Your task to perform on an android device: Open CNN.com Image 0: 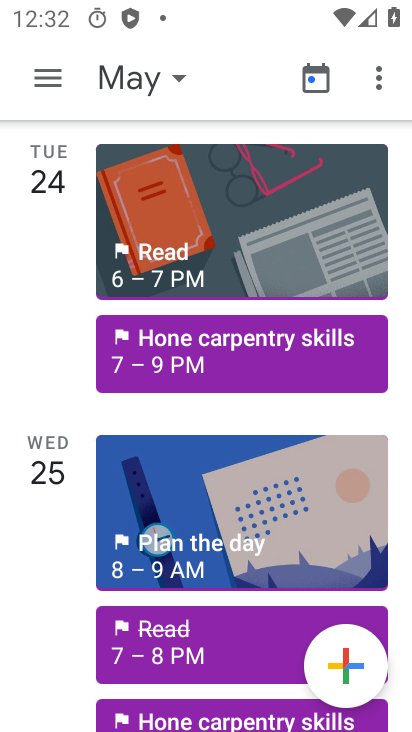
Step 0: press home button
Your task to perform on an android device: Open CNN.com Image 1: 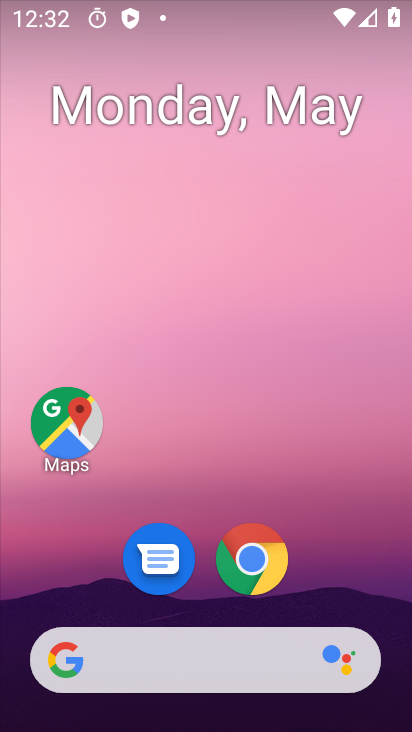
Step 1: drag from (319, 667) to (361, 352)
Your task to perform on an android device: Open CNN.com Image 2: 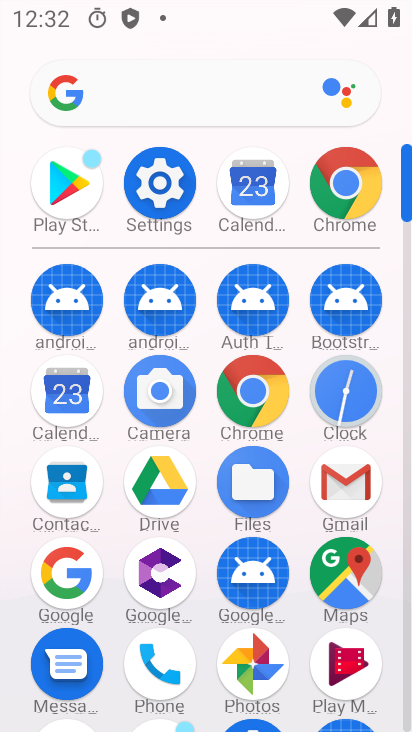
Step 2: click (245, 405)
Your task to perform on an android device: Open CNN.com Image 3: 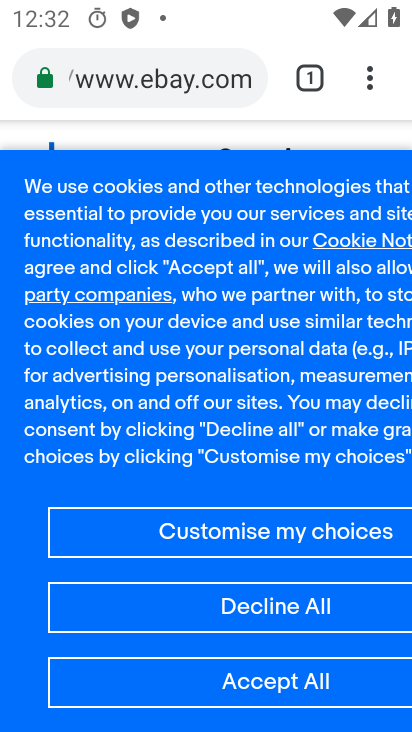
Step 3: click (192, 84)
Your task to perform on an android device: Open CNN.com Image 4: 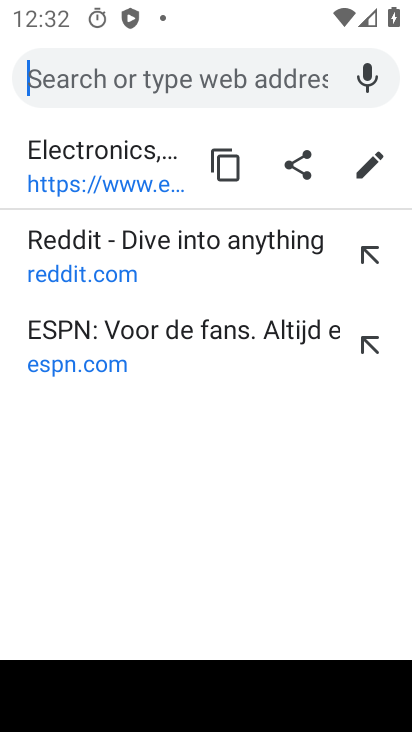
Step 4: type "cnn.com"
Your task to perform on an android device: Open CNN.com Image 5: 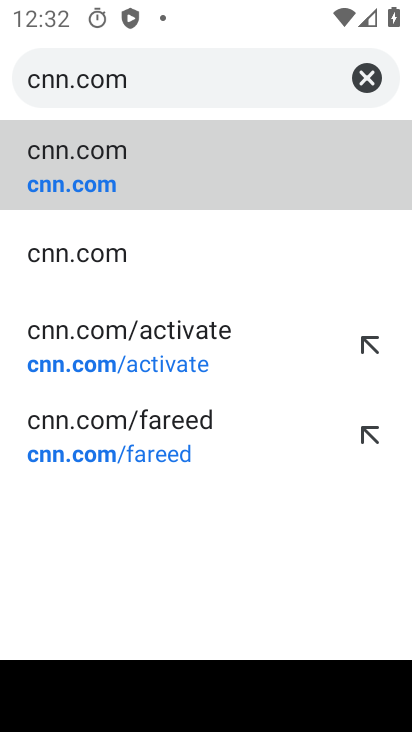
Step 5: click (206, 170)
Your task to perform on an android device: Open CNN.com Image 6: 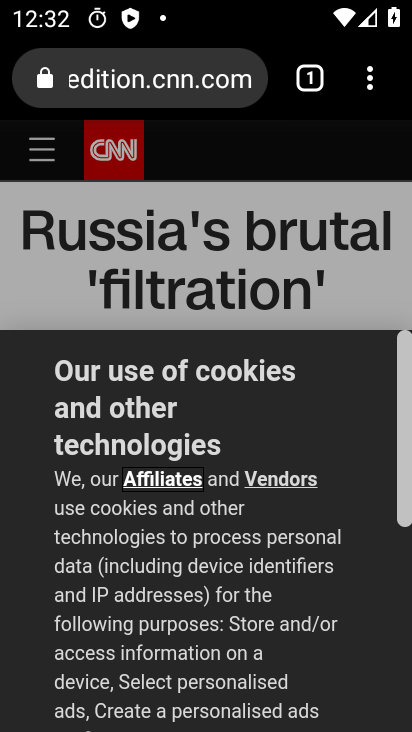
Step 6: task complete